Your task to perform on an android device: Open the stopwatch Image 0: 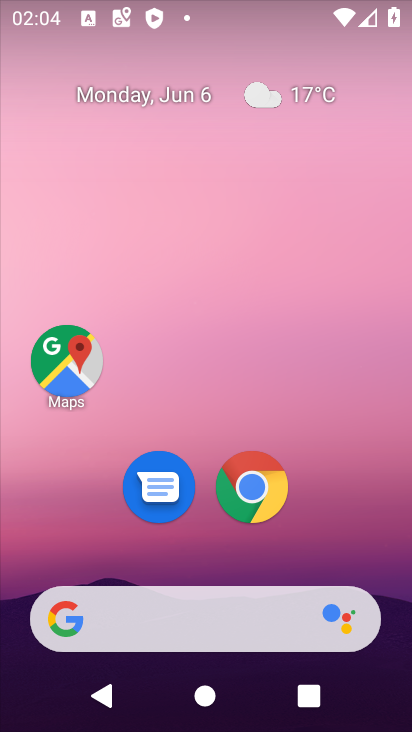
Step 0: drag from (402, 637) to (324, 39)
Your task to perform on an android device: Open the stopwatch Image 1: 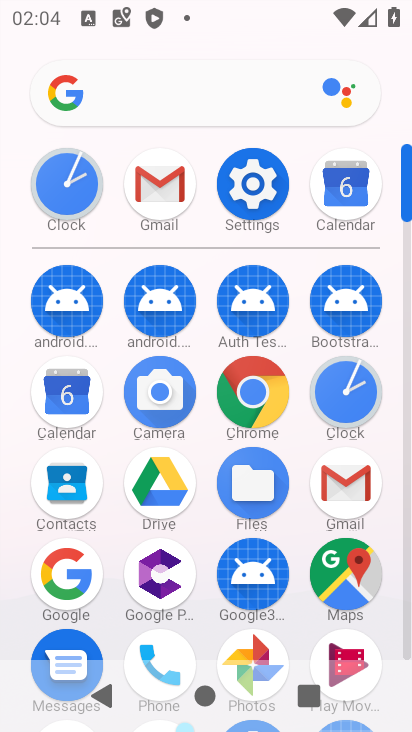
Step 1: click (407, 618)
Your task to perform on an android device: Open the stopwatch Image 2: 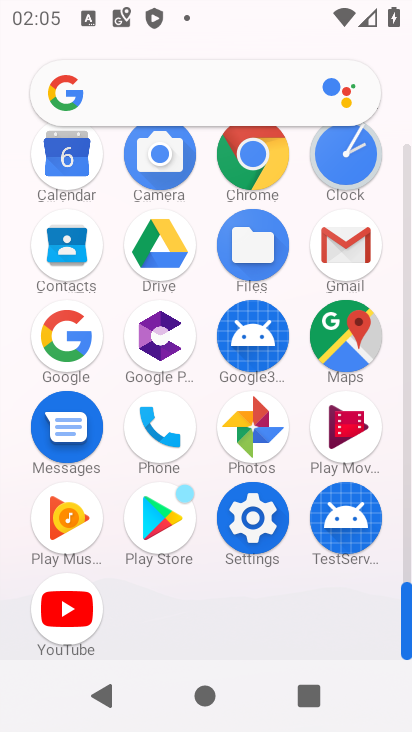
Step 2: click (345, 154)
Your task to perform on an android device: Open the stopwatch Image 3: 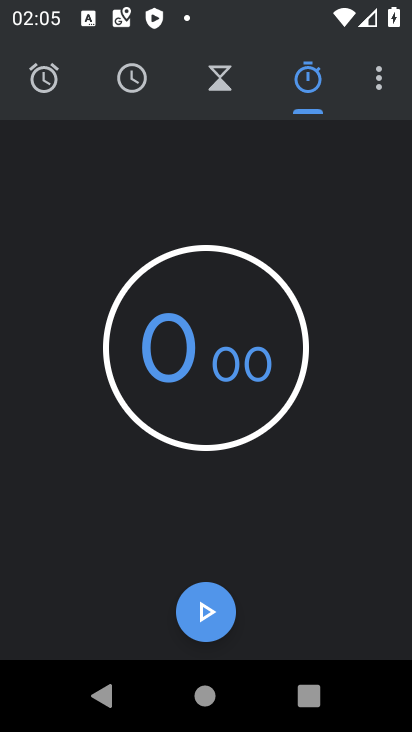
Step 3: task complete